Your task to perform on an android device: install app "Chime – Mobile Banking" Image 0: 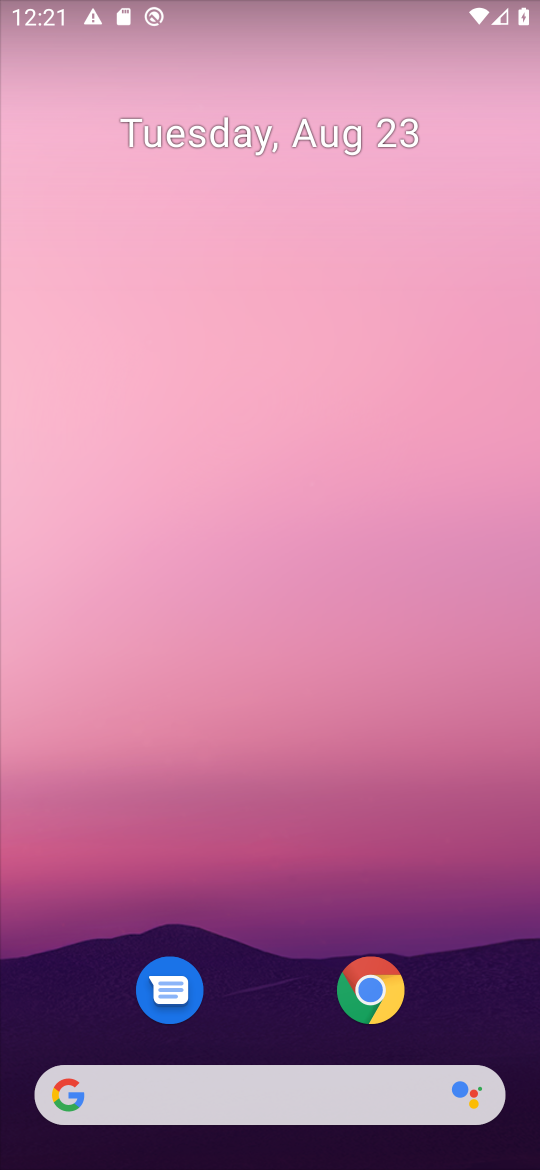
Step 0: drag from (259, 1078) to (269, 406)
Your task to perform on an android device: install app "Chime – Mobile Banking" Image 1: 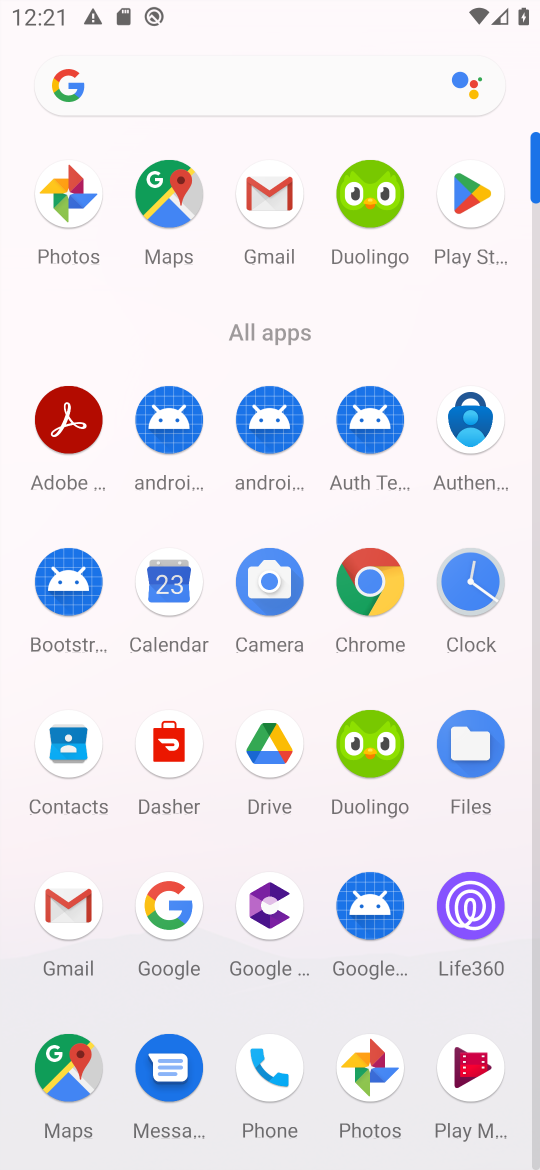
Step 1: click (460, 194)
Your task to perform on an android device: install app "Chime – Mobile Banking" Image 2: 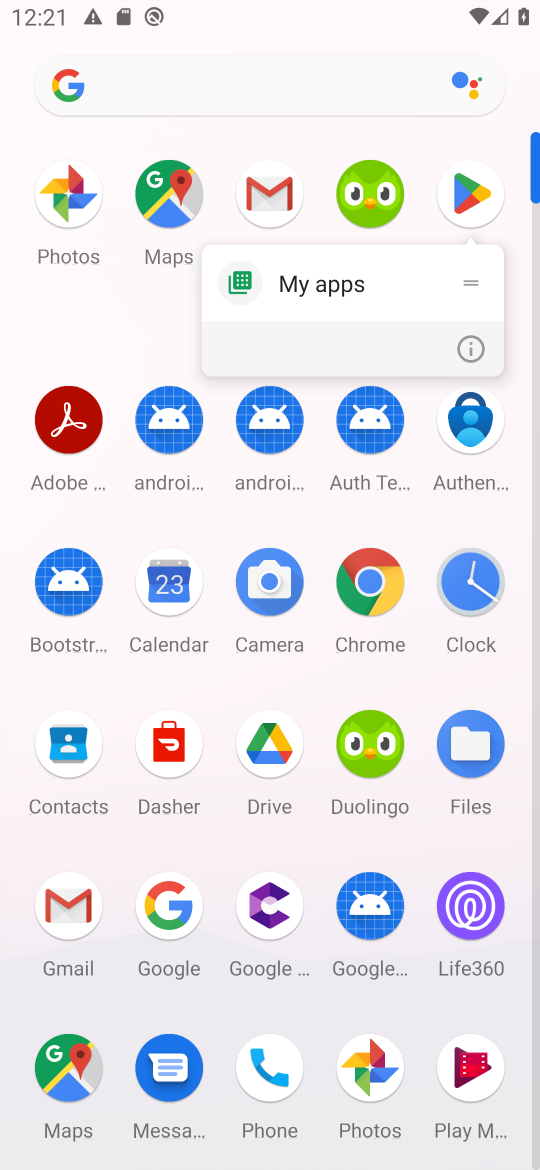
Step 2: click (452, 192)
Your task to perform on an android device: install app "Chime – Mobile Banking" Image 3: 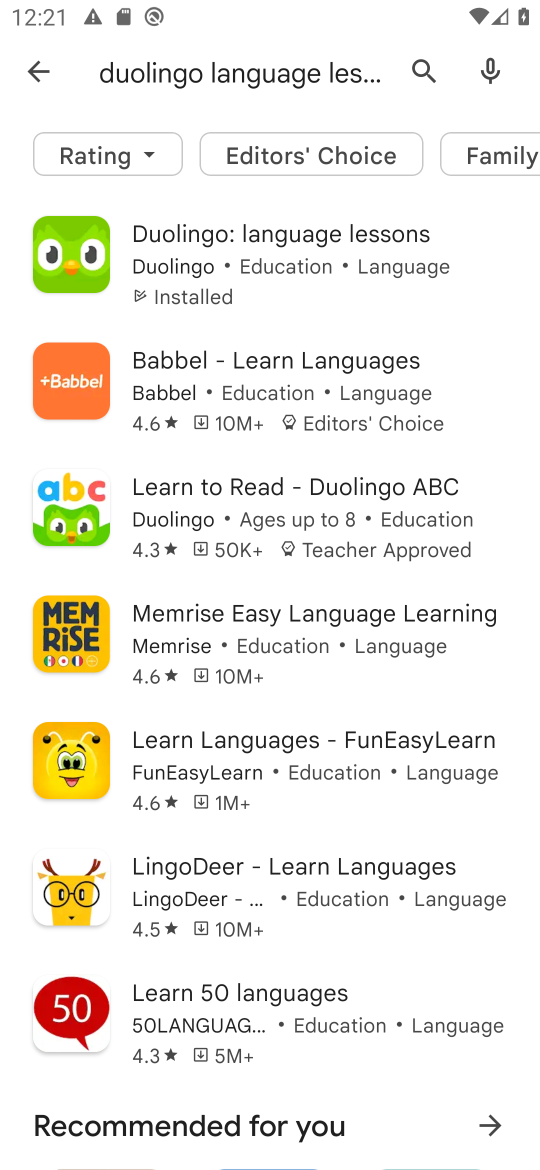
Step 3: click (46, 62)
Your task to perform on an android device: install app "Chime – Mobile Banking" Image 4: 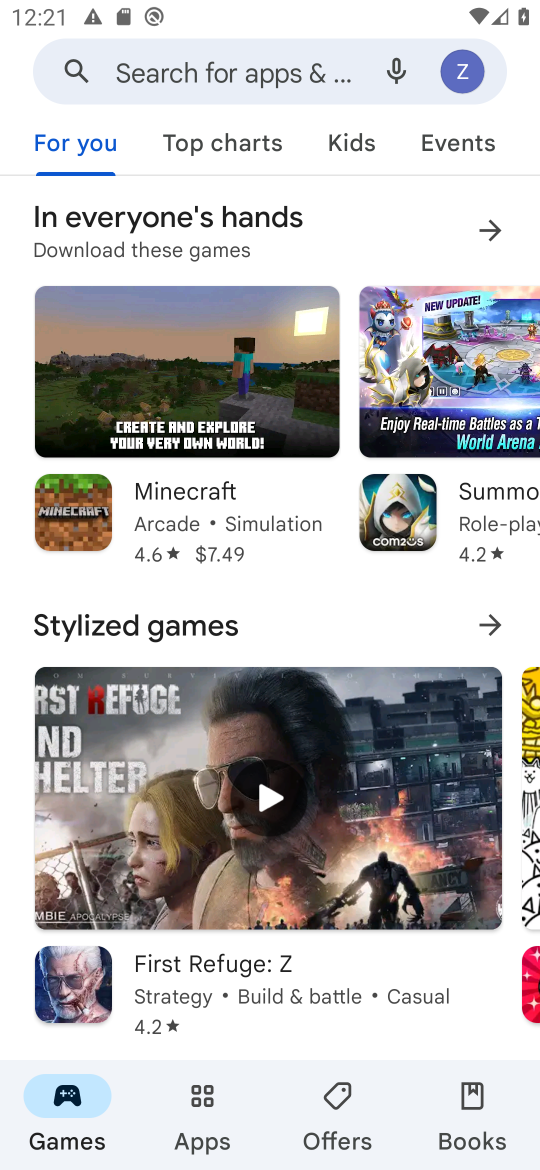
Step 4: click (182, 64)
Your task to perform on an android device: install app "Chime – Mobile Banking" Image 5: 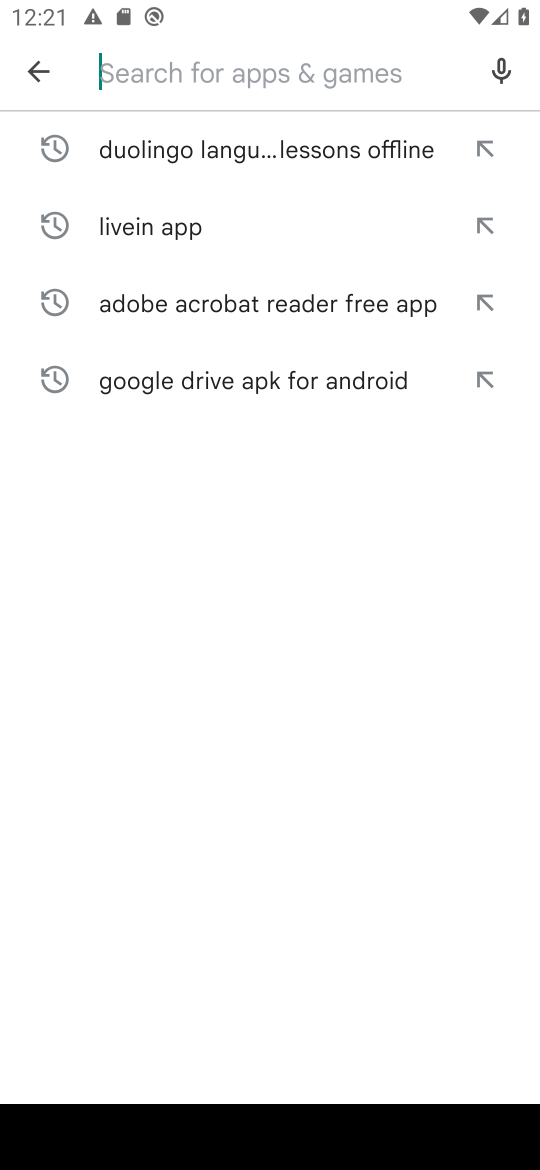
Step 5: type "chime "
Your task to perform on an android device: install app "Chime – Mobile Banking" Image 6: 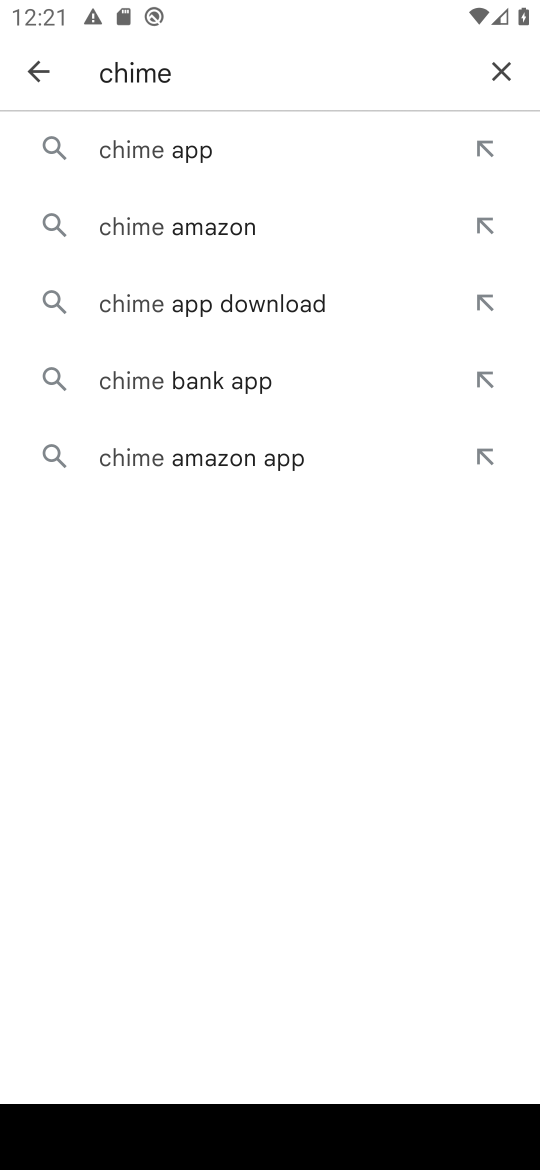
Step 6: click (161, 138)
Your task to perform on an android device: install app "Chime – Mobile Banking" Image 7: 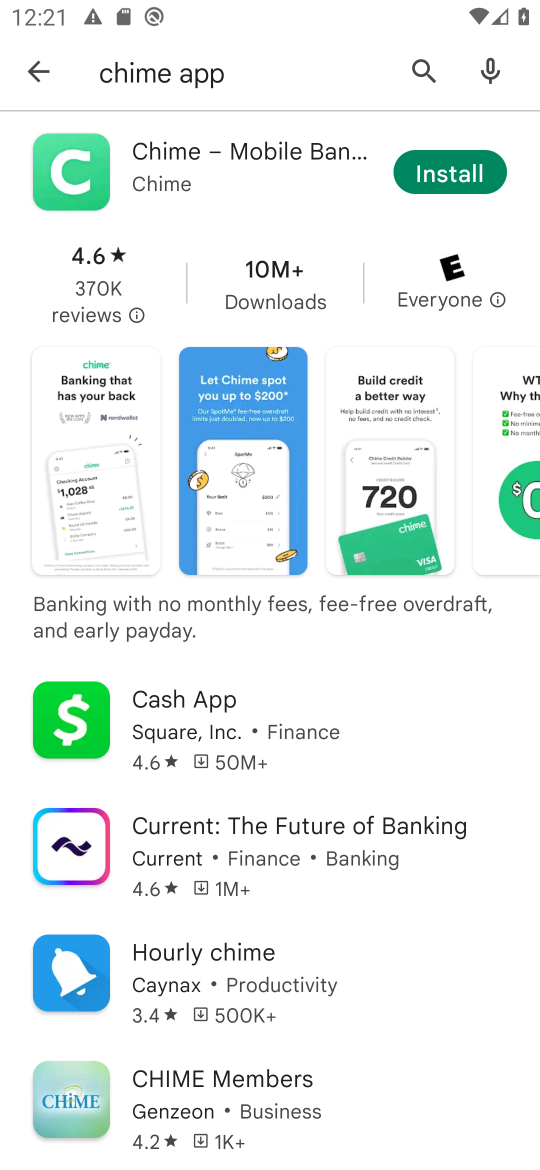
Step 7: click (455, 164)
Your task to perform on an android device: install app "Chime – Mobile Banking" Image 8: 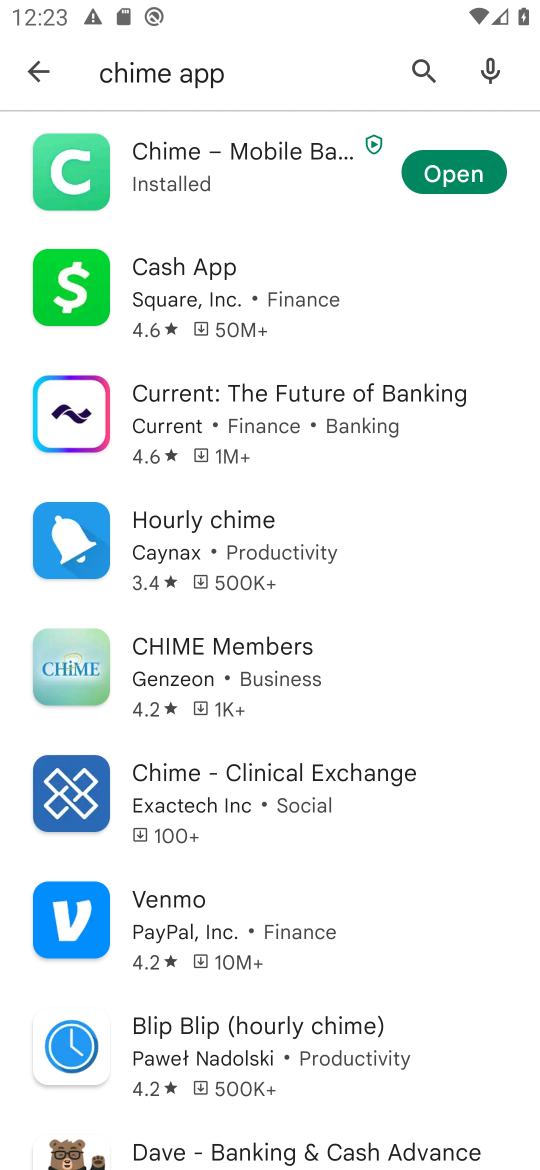
Step 8: click (410, 177)
Your task to perform on an android device: install app "Chime – Mobile Banking" Image 9: 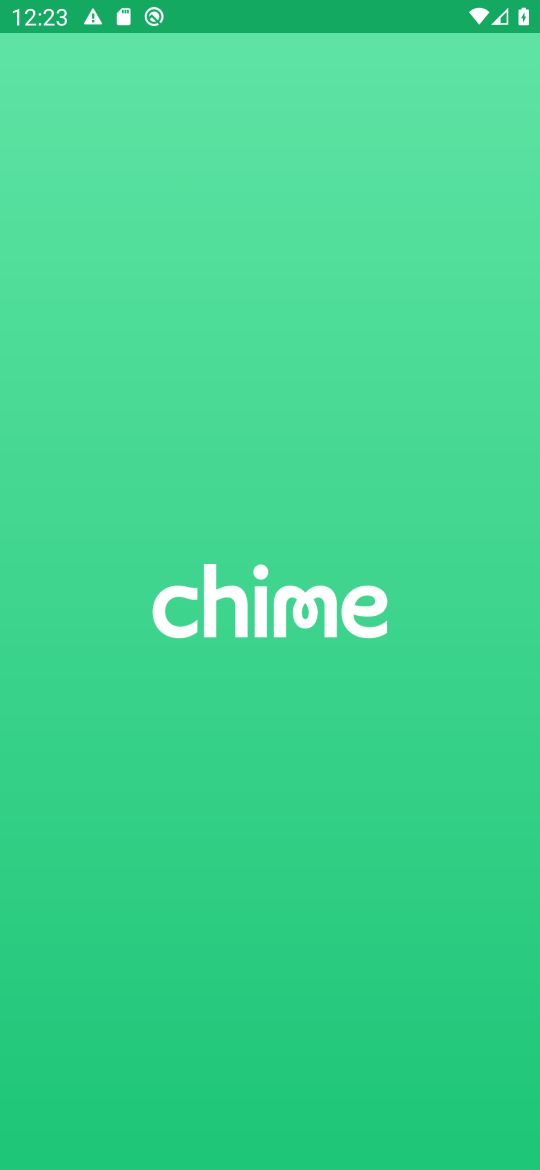
Step 9: task complete